Your task to perform on an android device: turn off improve location accuracy Image 0: 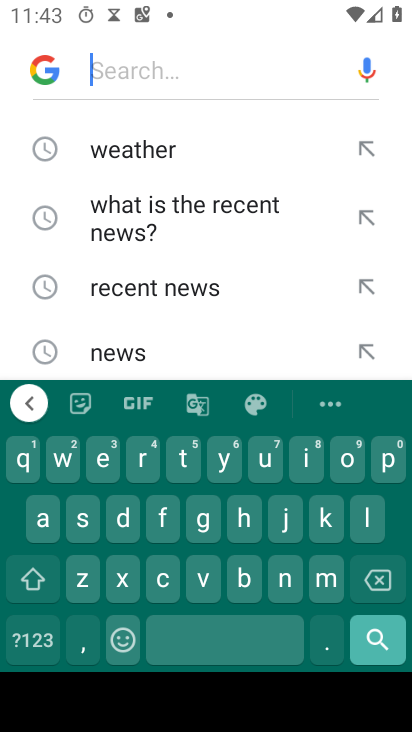
Step 0: press home button
Your task to perform on an android device: turn off improve location accuracy Image 1: 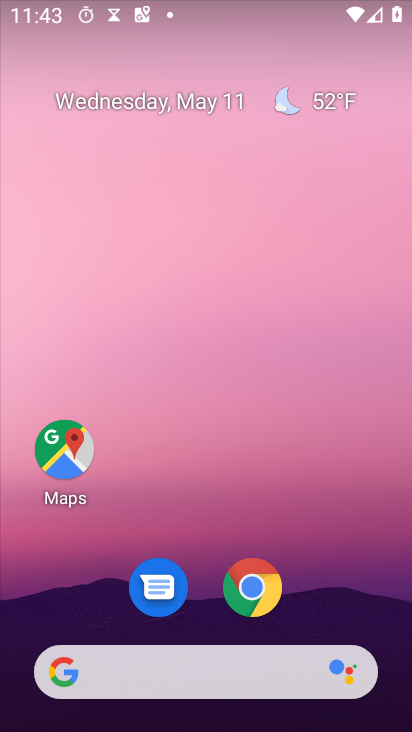
Step 1: drag from (219, 708) to (411, 69)
Your task to perform on an android device: turn off improve location accuracy Image 2: 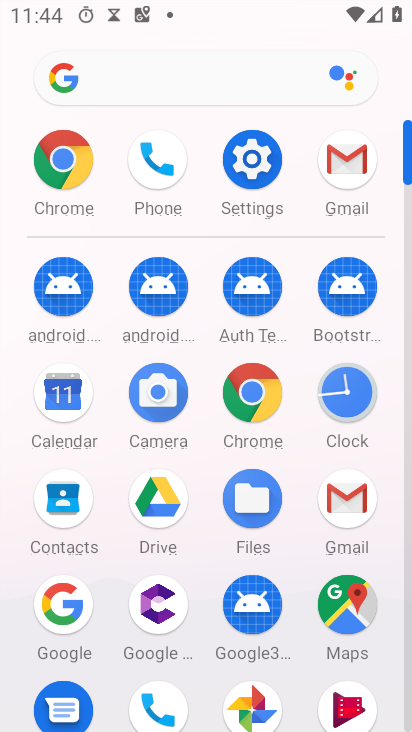
Step 2: click (254, 159)
Your task to perform on an android device: turn off improve location accuracy Image 3: 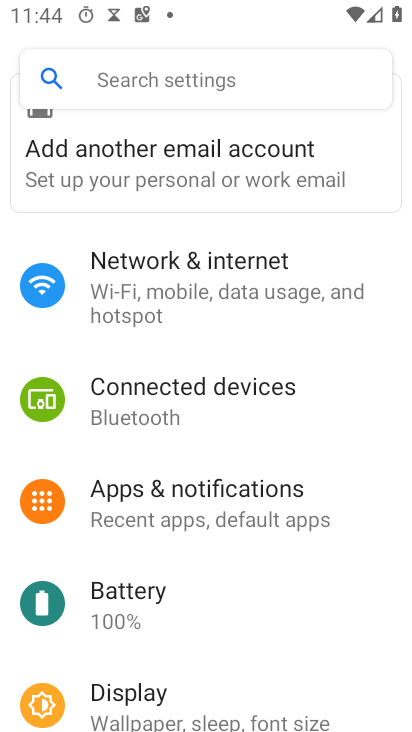
Step 3: click (216, 94)
Your task to perform on an android device: turn off improve location accuracy Image 4: 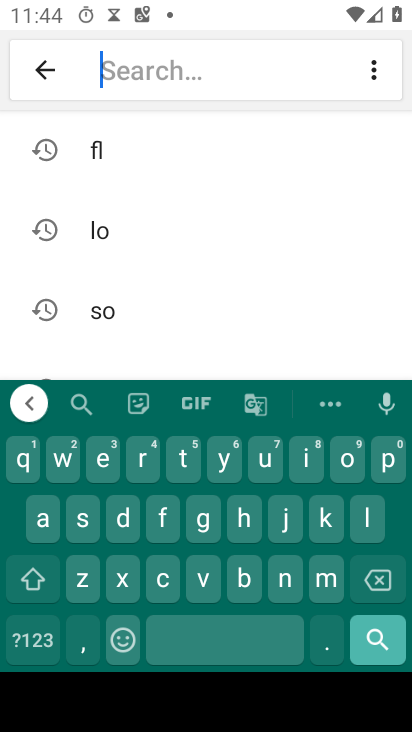
Step 4: click (107, 226)
Your task to perform on an android device: turn off improve location accuracy Image 5: 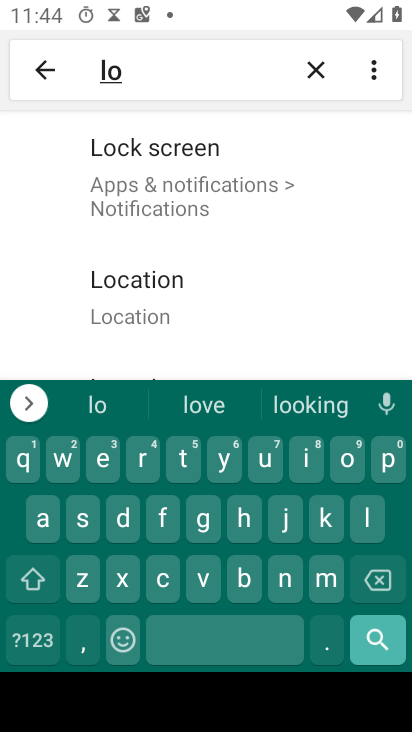
Step 5: click (174, 288)
Your task to perform on an android device: turn off improve location accuracy Image 6: 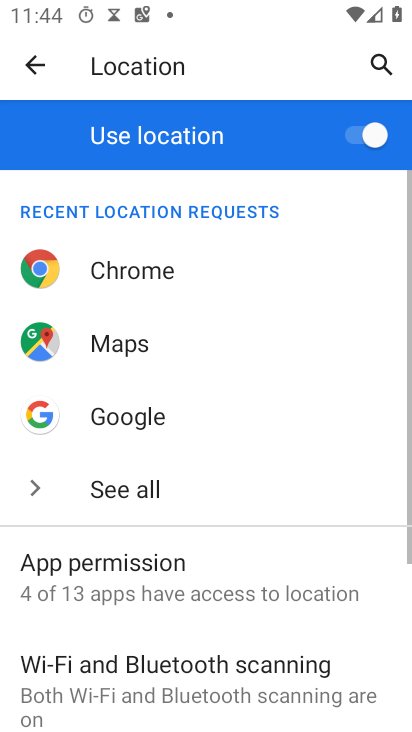
Step 6: drag from (209, 552) to (371, 294)
Your task to perform on an android device: turn off improve location accuracy Image 7: 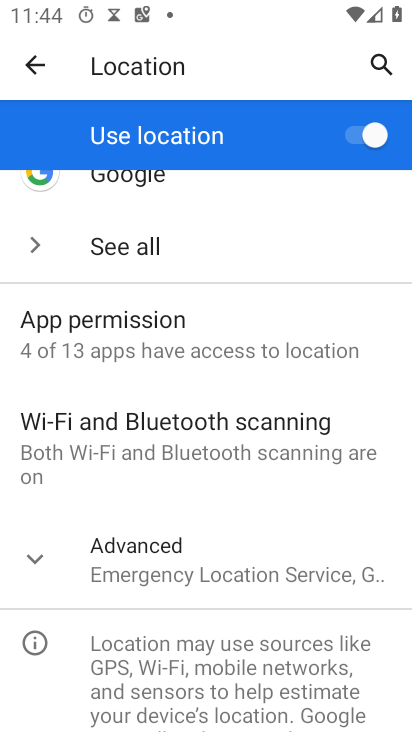
Step 7: click (80, 559)
Your task to perform on an android device: turn off improve location accuracy Image 8: 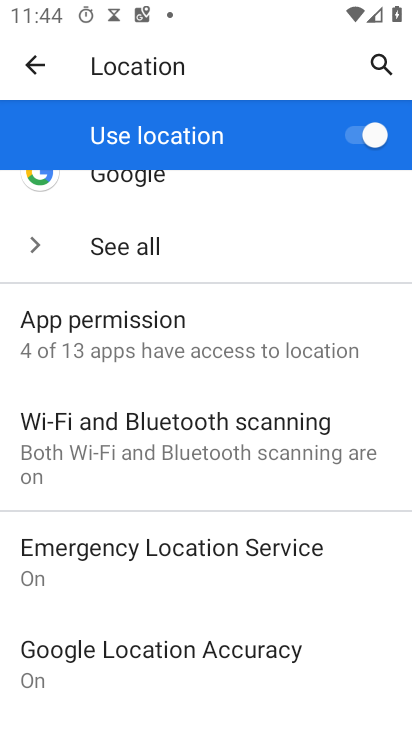
Step 8: click (163, 648)
Your task to perform on an android device: turn off improve location accuracy Image 9: 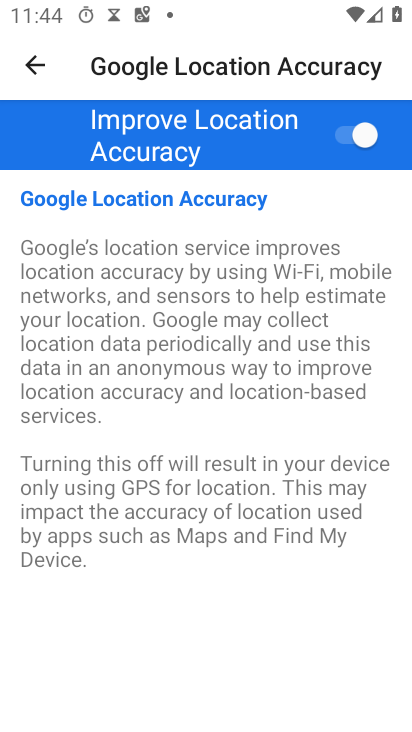
Step 9: click (355, 136)
Your task to perform on an android device: turn off improve location accuracy Image 10: 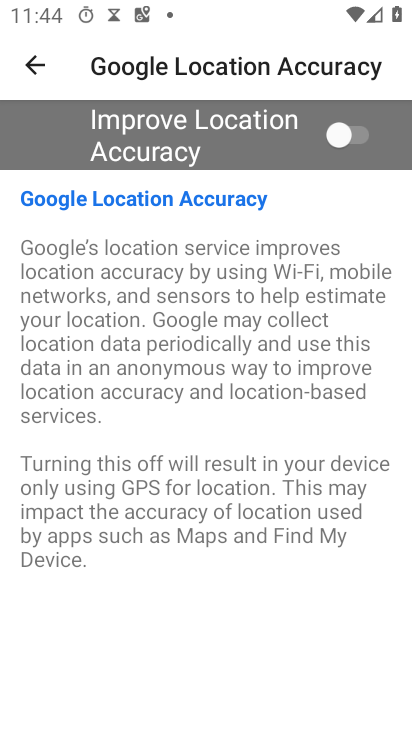
Step 10: task complete